Your task to perform on an android device: Set the phone to "Do not disturb". Image 0: 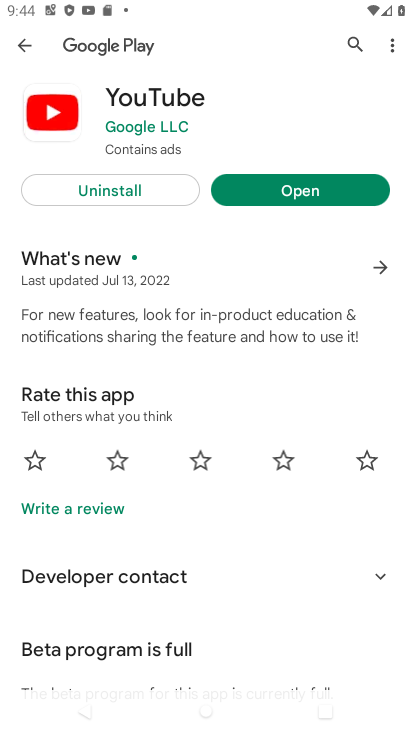
Step 0: press home button
Your task to perform on an android device: Set the phone to "Do not disturb". Image 1: 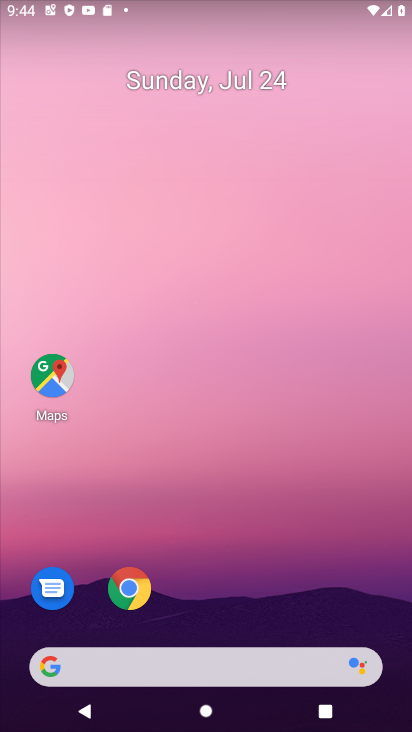
Step 1: drag from (263, 623) to (262, 29)
Your task to perform on an android device: Set the phone to "Do not disturb". Image 2: 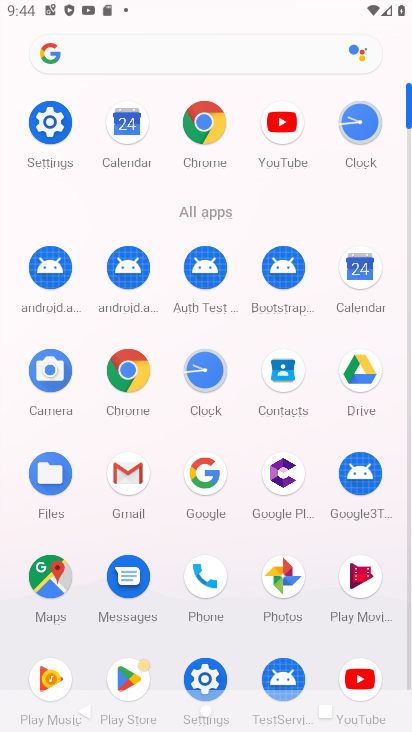
Step 2: click (54, 119)
Your task to perform on an android device: Set the phone to "Do not disturb". Image 3: 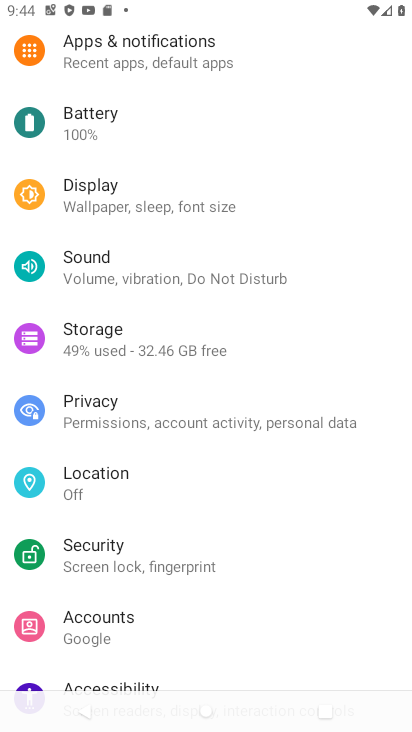
Step 3: click (74, 279)
Your task to perform on an android device: Set the phone to "Do not disturb". Image 4: 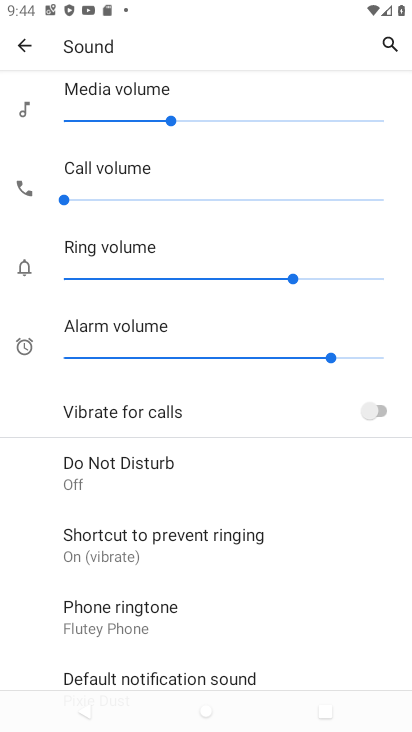
Step 4: click (131, 473)
Your task to perform on an android device: Set the phone to "Do not disturb". Image 5: 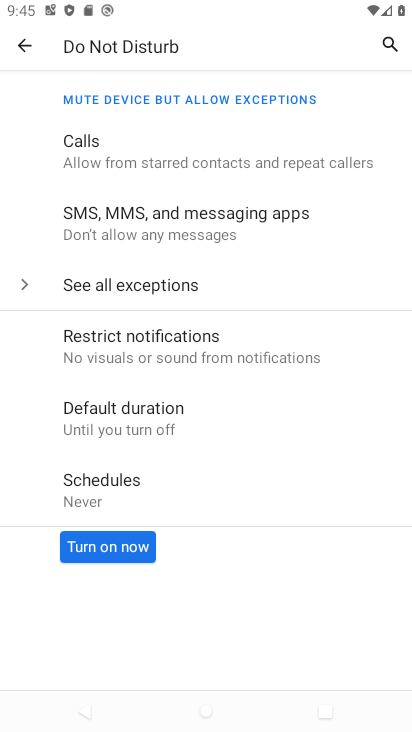
Step 5: click (116, 544)
Your task to perform on an android device: Set the phone to "Do not disturb". Image 6: 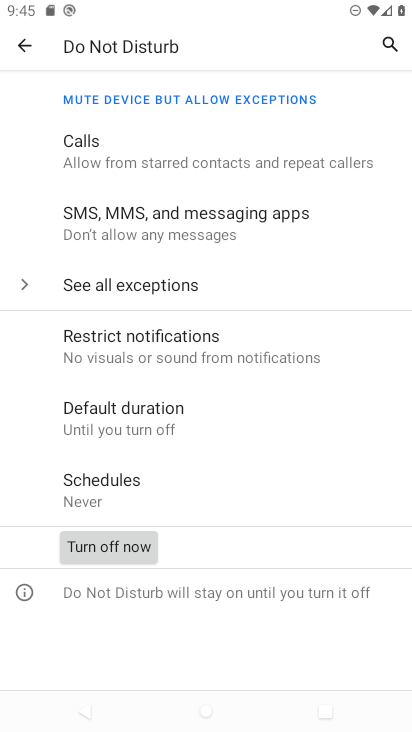
Step 6: task complete